Your task to perform on an android device: open chrome and create a bookmark for the current page Image 0: 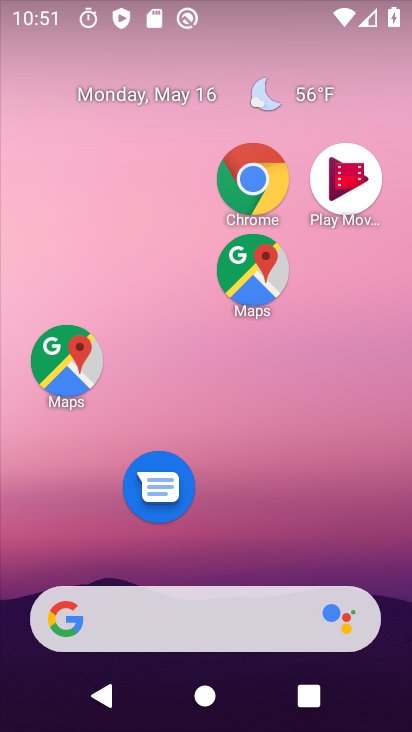
Step 0: drag from (254, 551) to (318, 127)
Your task to perform on an android device: open chrome and create a bookmark for the current page Image 1: 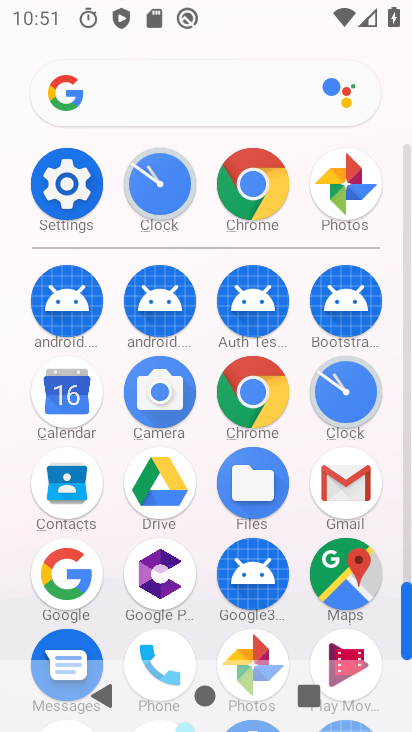
Step 1: click (67, 197)
Your task to perform on an android device: open chrome and create a bookmark for the current page Image 2: 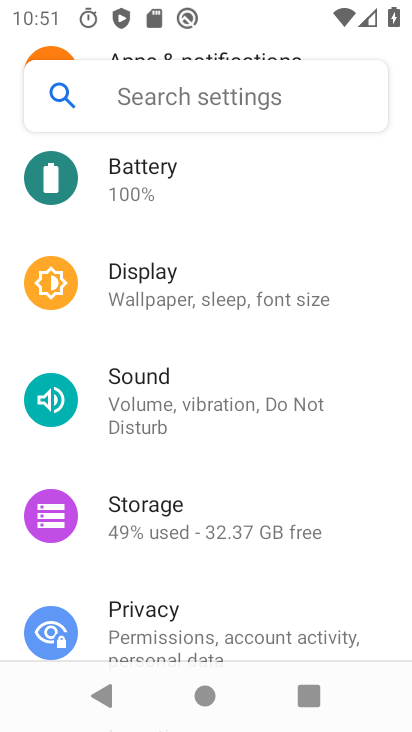
Step 2: click (137, 191)
Your task to perform on an android device: open chrome and create a bookmark for the current page Image 3: 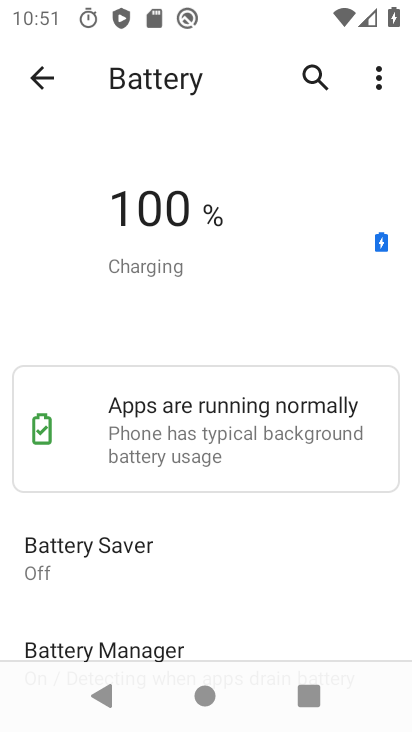
Step 3: task complete